Your task to perform on an android device: check data usage Image 0: 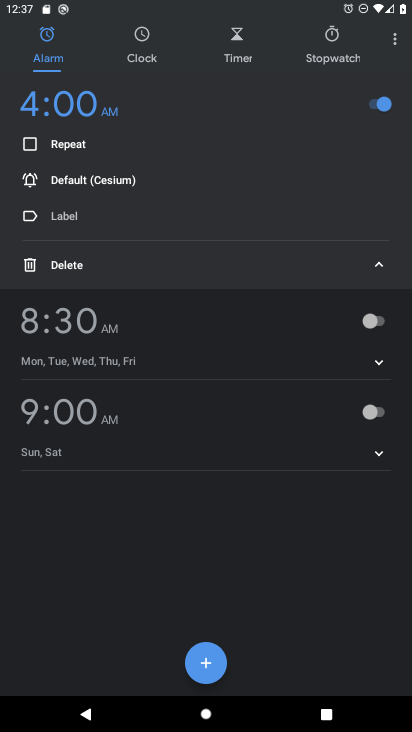
Step 0: press home button
Your task to perform on an android device: check data usage Image 1: 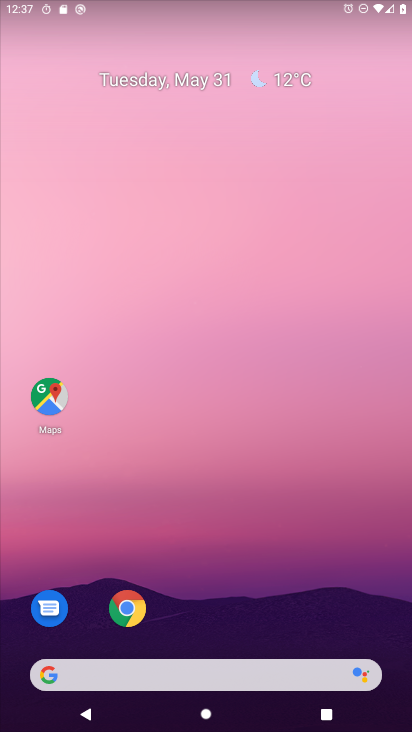
Step 1: drag from (258, 637) to (189, 1)
Your task to perform on an android device: check data usage Image 2: 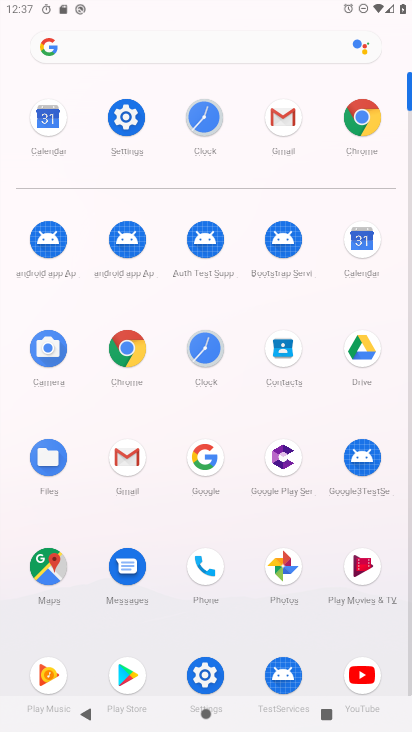
Step 2: click (122, 116)
Your task to perform on an android device: check data usage Image 3: 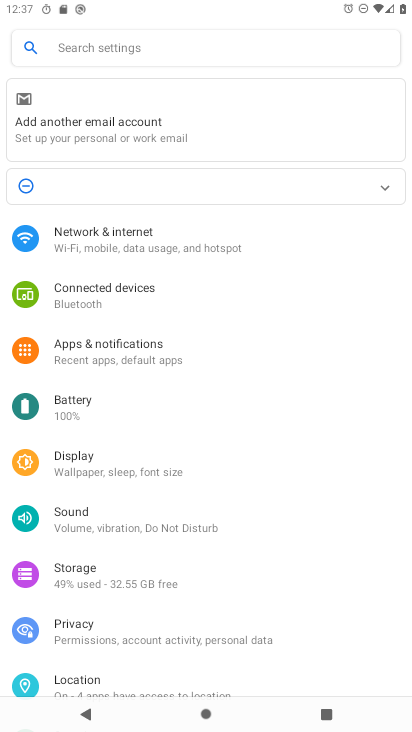
Step 3: click (97, 248)
Your task to perform on an android device: check data usage Image 4: 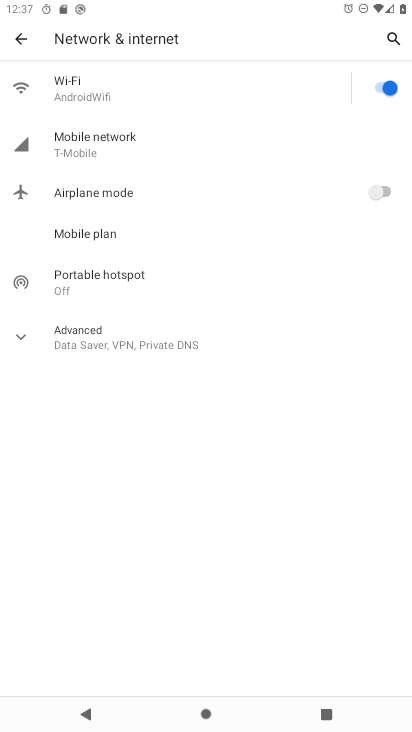
Step 4: click (76, 151)
Your task to perform on an android device: check data usage Image 5: 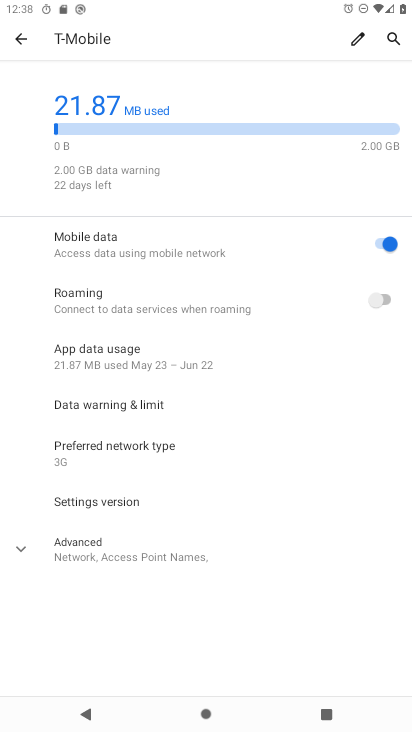
Step 5: click (98, 362)
Your task to perform on an android device: check data usage Image 6: 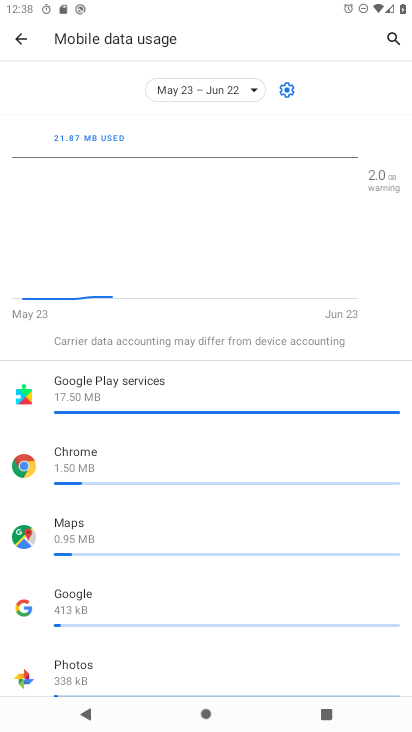
Step 6: task complete